Your task to perform on an android device: Open Google Chrome Image 0: 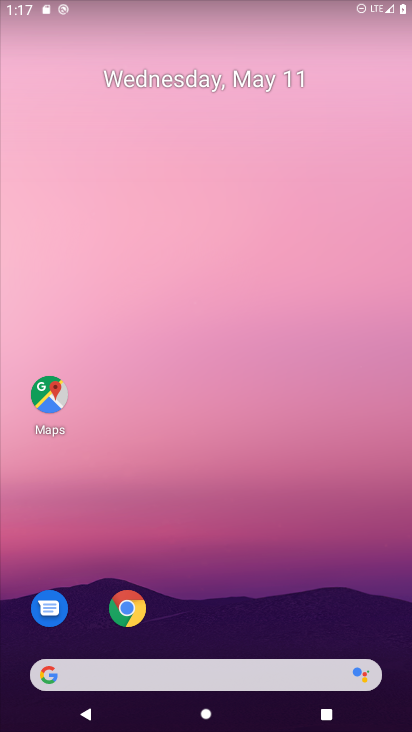
Step 0: click (122, 611)
Your task to perform on an android device: Open Google Chrome Image 1: 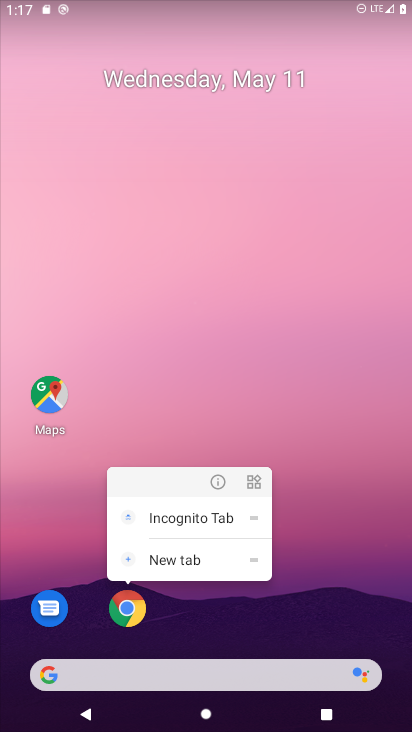
Step 1: click (122, 611)
Your task to perform on an android device: Open Google Chrome Image 2: 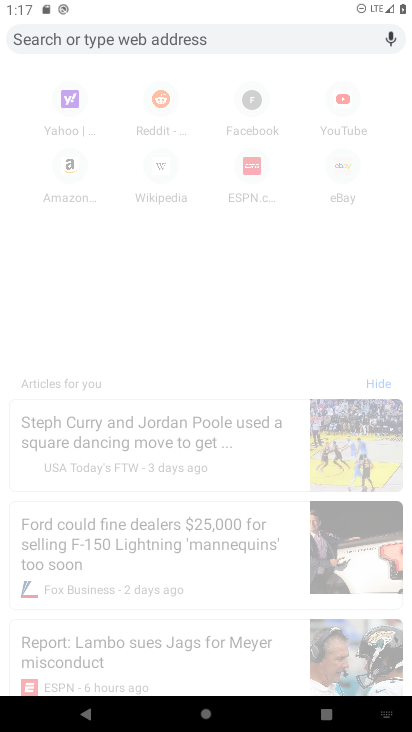
Step 2: task complete